Your task to perform on an android device: turn off sleep mode Image 0: 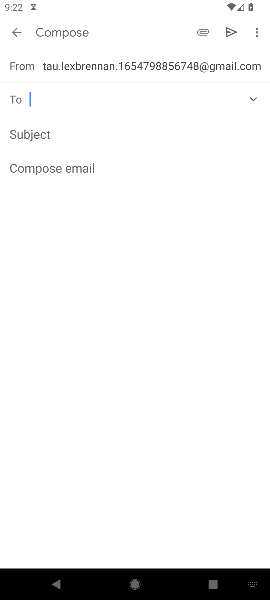
Step 0: press home button
Your task to perform on an android device: turn off sleep mode Image 1: 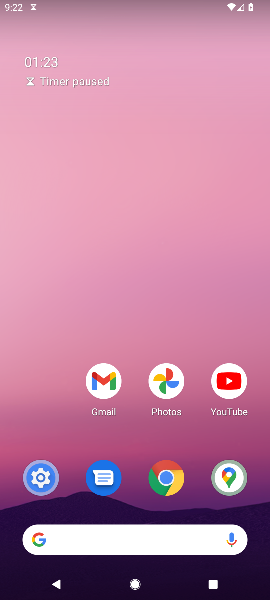
Step 1: drag from (150, 541) to (157, 191)
Your task to perform on an android device: turn off sleep mode Image 2: 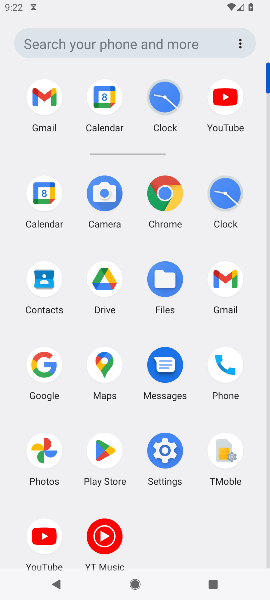
Step 2: click (165, 448)
Your task to perform on an android device: turn off sleep mode Image 3: 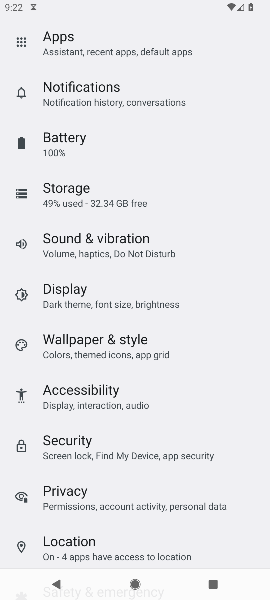
Step 3: click (110, 294)
Your task to perform on an android device: turn off sleep mode Image 4: 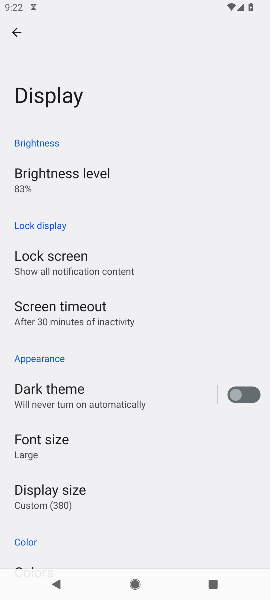
Step 4: task complete